Your task to perform on an android device: See recent photos Image 0: 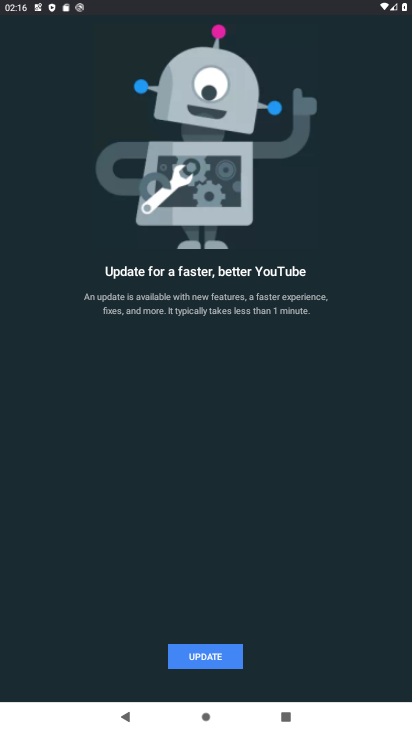
Step 0: press home button
Your task to perform on an android device: See recent photos Image 1: 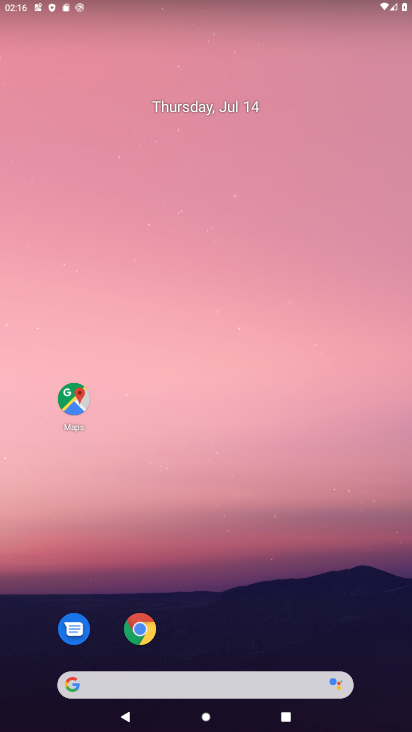
Step 1: drag from (176, 634) to (216, 0)
Your task to perform on an android device: See recent photos Image 2: 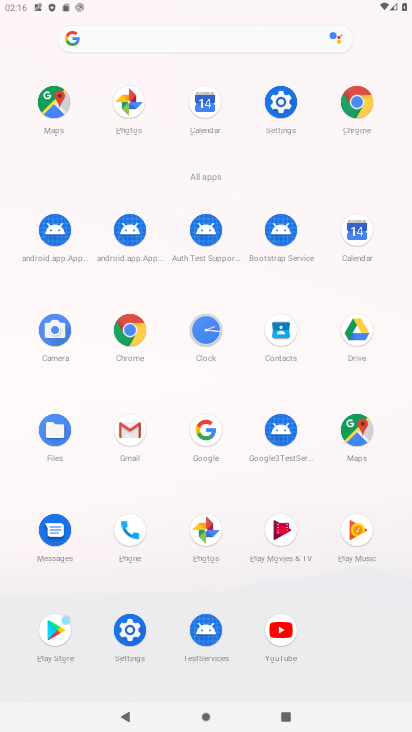
Step 2: click (212, 538)
Your task to perform on an android device: See recent photos Image 3: 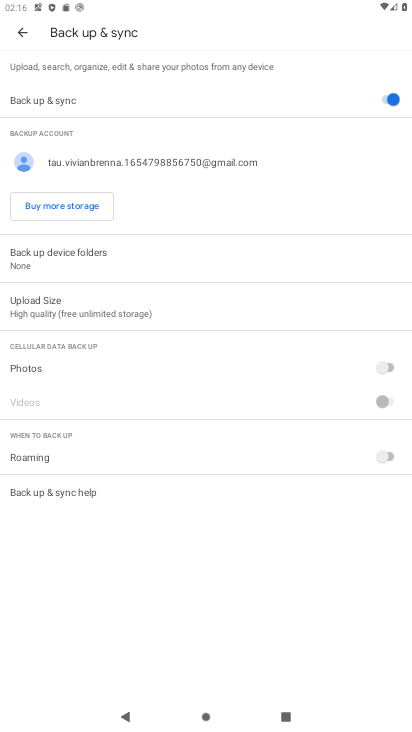
Step 3: click (20, 33)
Your task to perform on an android device: See recent photos Image 4: 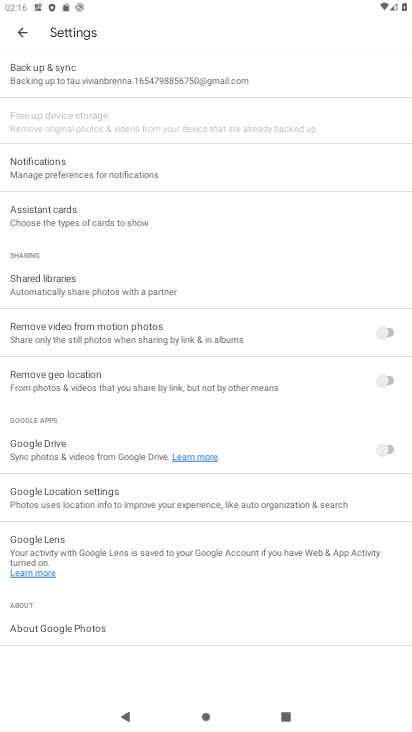
Step 4: click (27, 33)
Your task to perform on an android device: See recent photos Image 5: 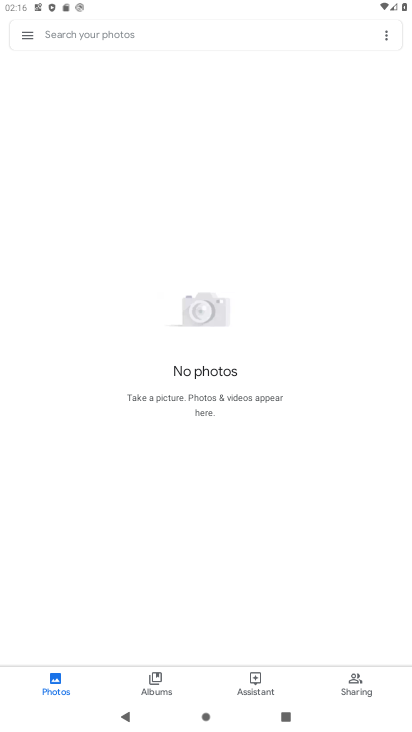
Step 5: task complete